Your task to perform on an android device: set an alarm Image 0: 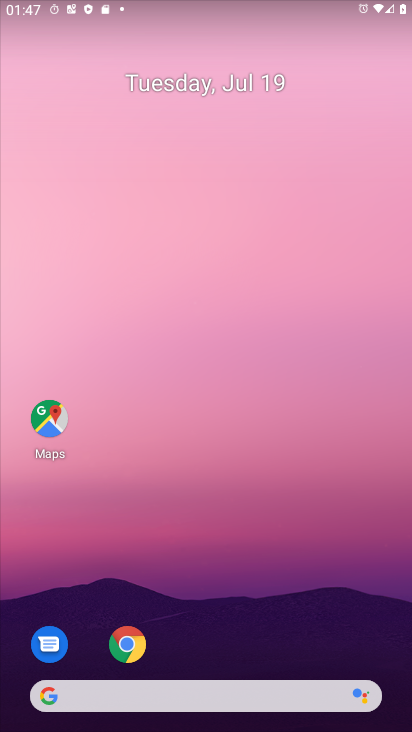
Step 0: drag from (190, 723) to (179, 344)
Your task to perform on an android device: set an alarm Image 1: 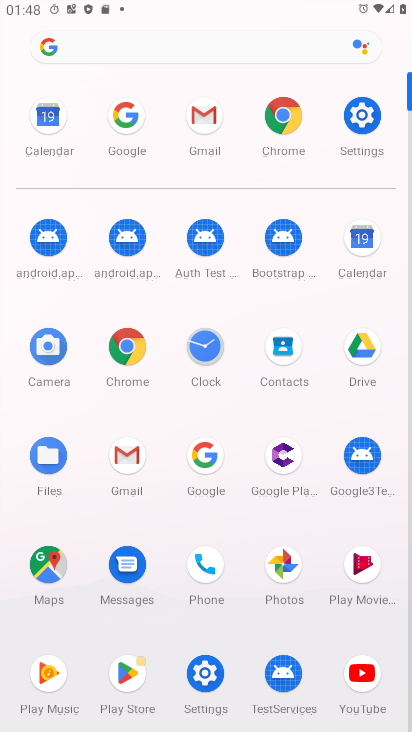
Step 1: click (200, 352)
Your task to perform on an android device: set an alarm Image 2: 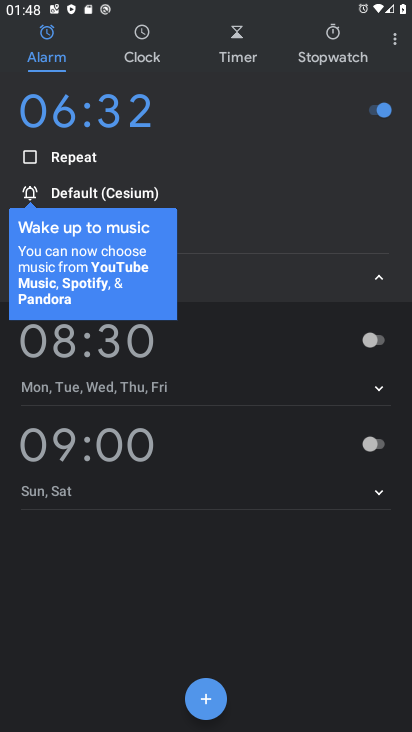
Step 2: click (211, 700)
Your task to perform on an android device: set an alarm Image 3: 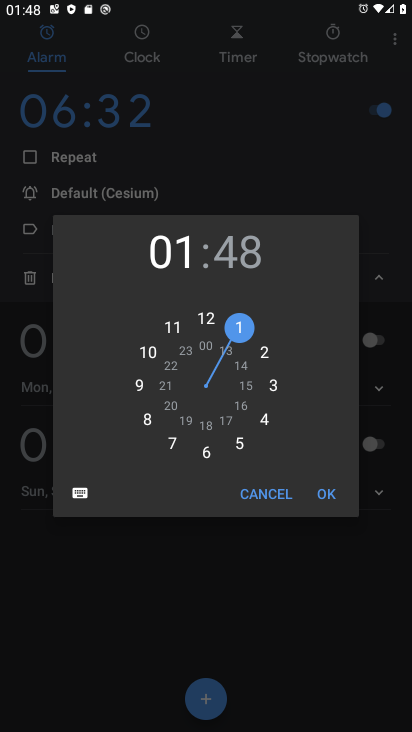
Step 3: click (205, 453)
Your task to perform on an android device: set an alarm Image 4: 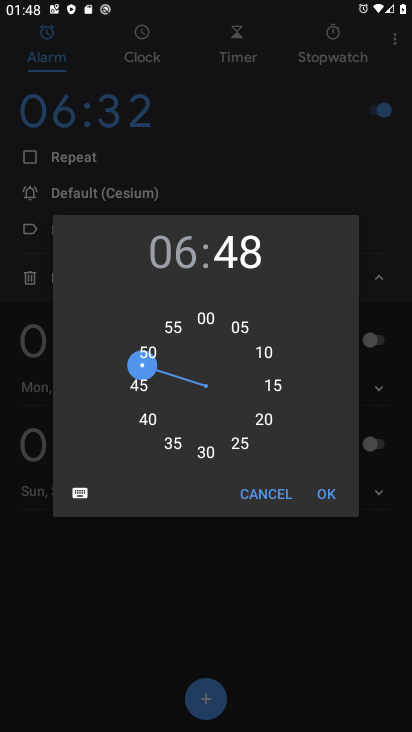
Step 4: click (320, 493)
Your task to perform on an android device: set an alarm Image 5: 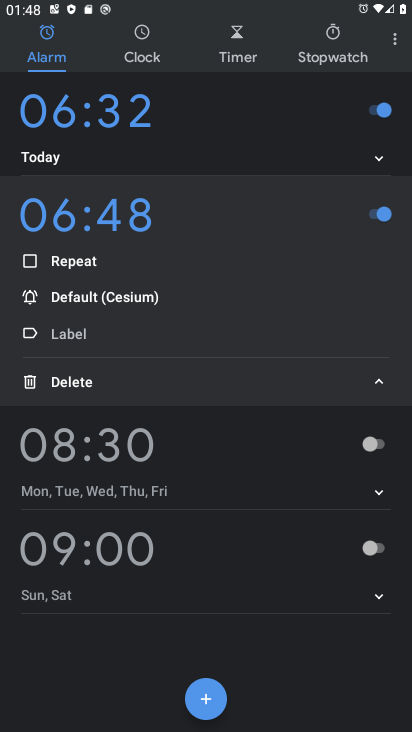
Step 5: task complete